Your task to perform on an android device: Go to Reddit.com Image 0: 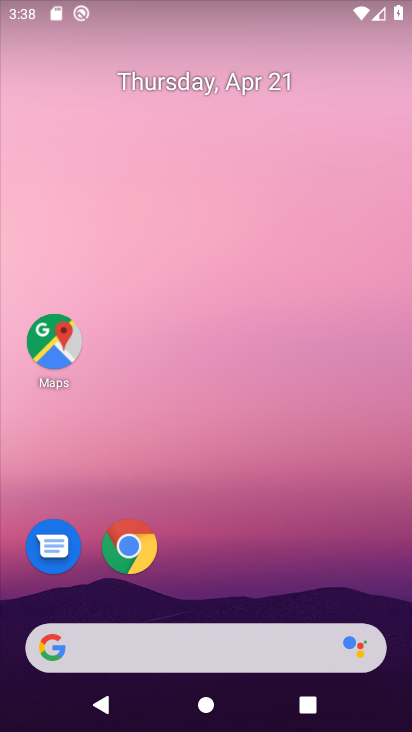
Step 0: click (222, 636)
Your task to perform on an android device: Go to Reddit.com Image 1: 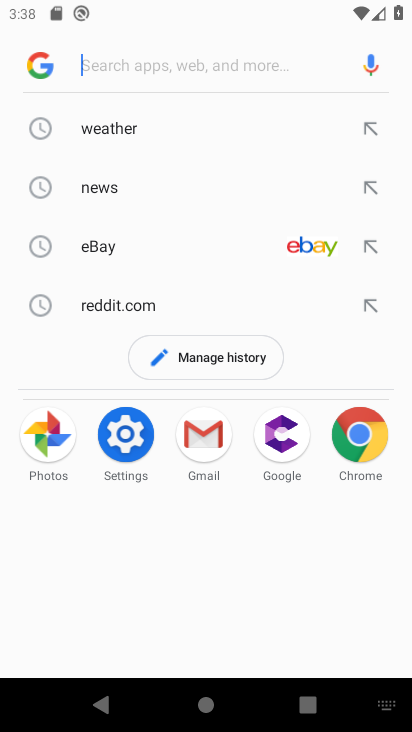
Step 1: click (193, 319)
Your task to perform on an android device: Go to Reddit.com Image 2: 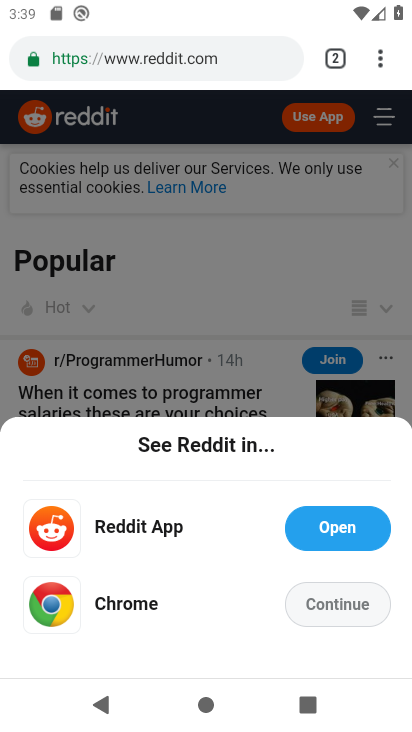
Step 2: task complete